Your task to perform on an android device: refresh tabs in the chrome app Image 0: 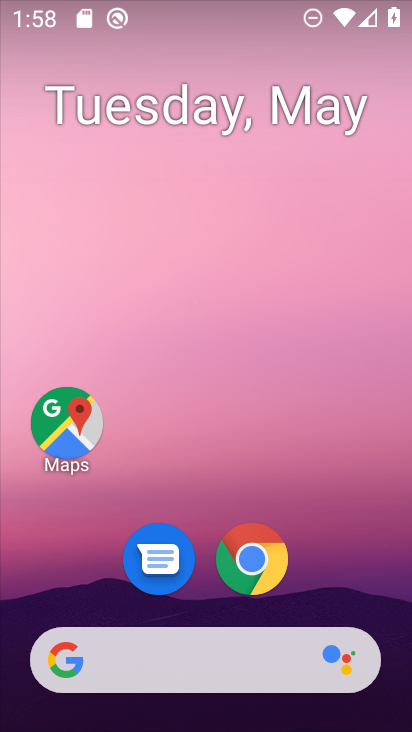
Step 0: drag from (400, 639) to (228, 125)
Your task to perform on an android device: refresh tabs in the chrome app Image 1: 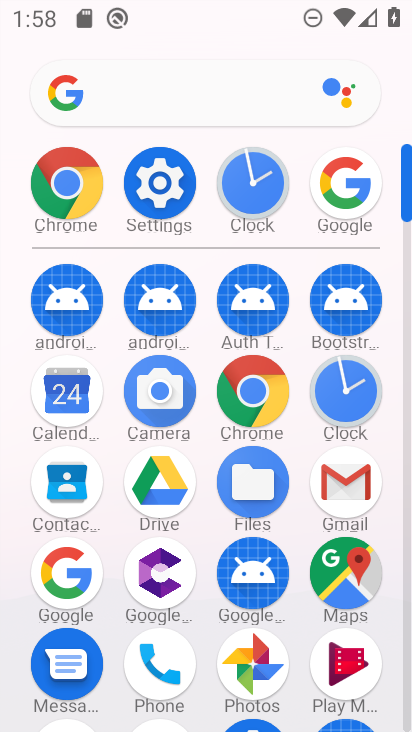
Step 1: click (256, 399)
Your task to perform on an android device: refresh tabs in the chrome app Image 2: 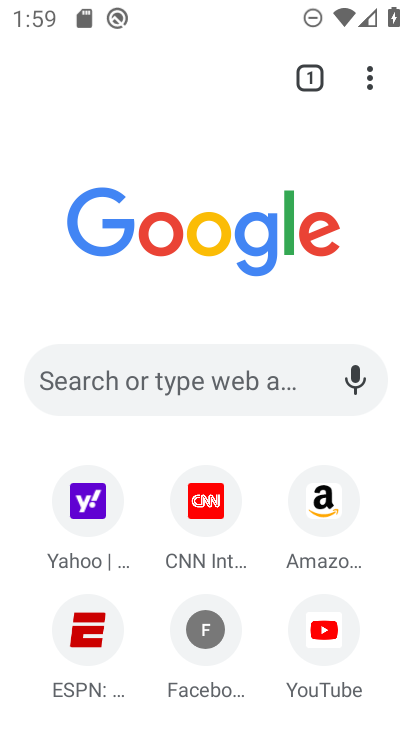
Step 2: click (369, 76)
Your task to perform on an android device: refresh tabs in the chrome app Image 3: 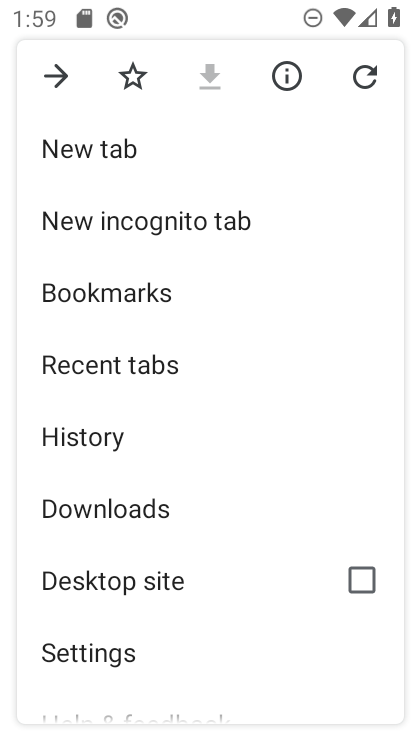
Step 3: click (374, 91)
Your task to perform on an android device: refresh tabs in the chrome app Image 4: 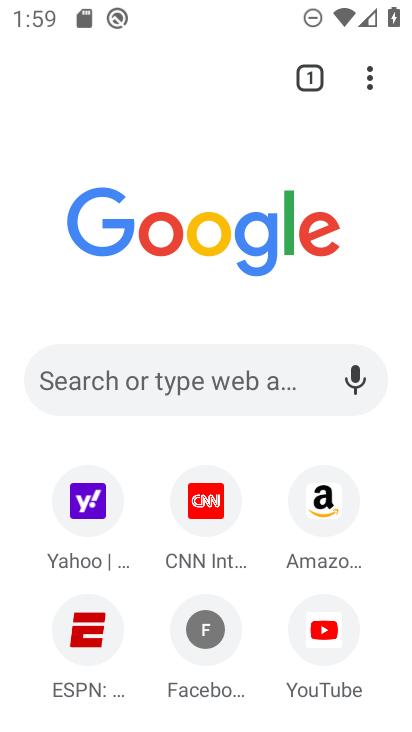
Step 4: task complete